Your task to perform on an android device: Search for "razer blade" on costco, select the first entry, add it to the cart, then select checkout. Image 0: 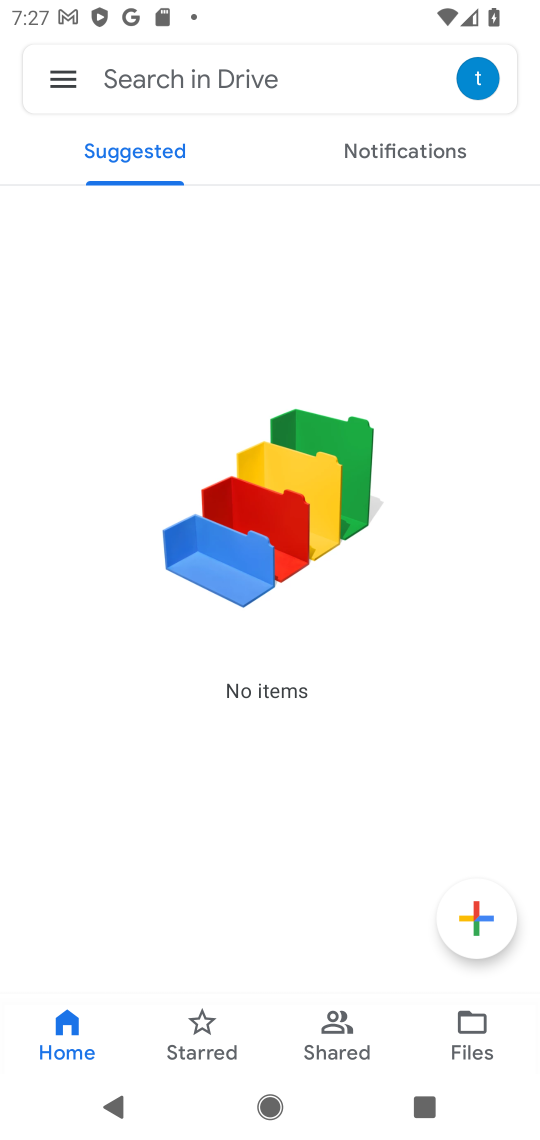
Step 0: press home button
Your task to perform on an android device: Search for "razer blade" on costco, select the first entry, add it to the cart, then select checkout. Image 1: 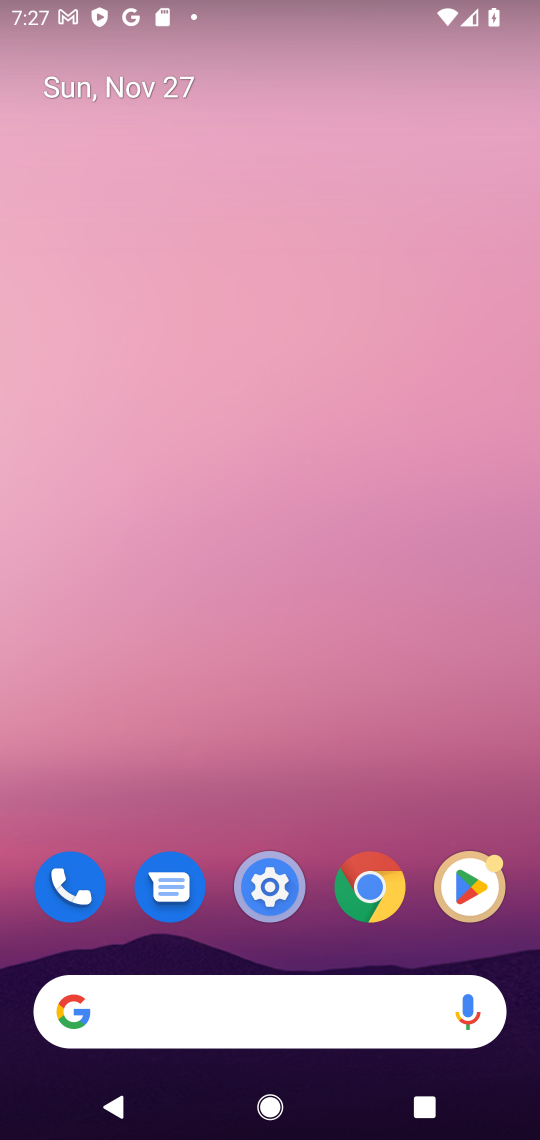
Step 1: click (215, 1009)
Your task to perform on an android device: Search for "razer blade" on costco, select the first entry, add it to the cart, then select checkout. Image 2: 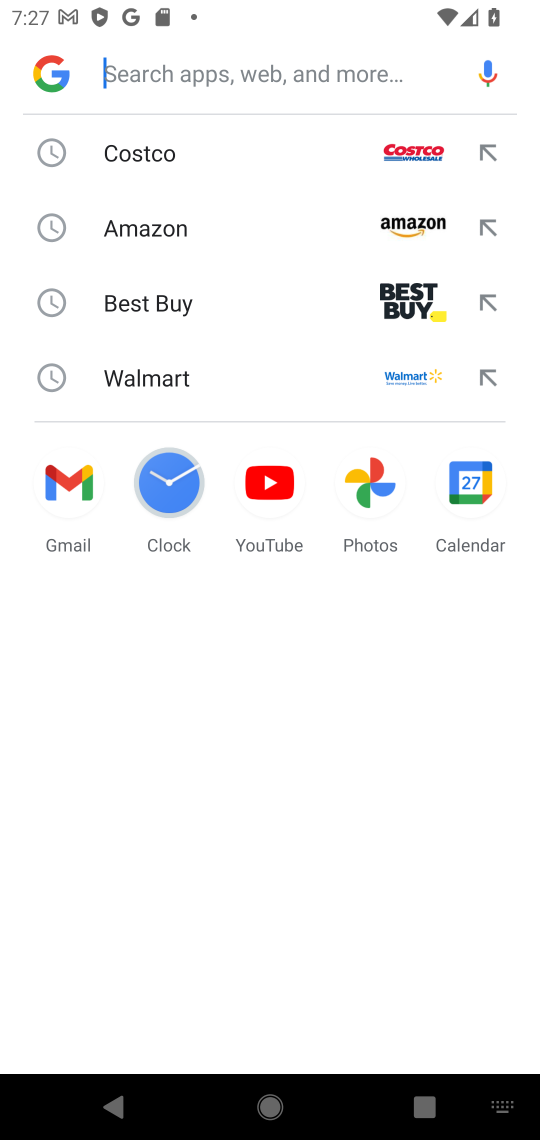
Step 2: click (253, 137)
Your task to perform on an android device: Search for "razer blade" on costco, select the first entry, add it to the cart, then select checkout. Image 3: 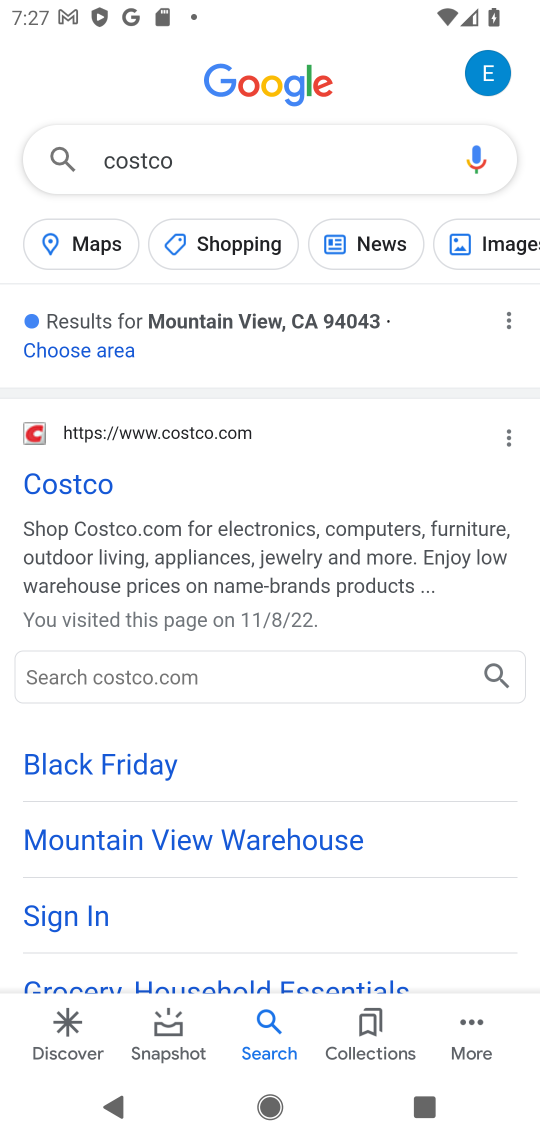
Step 3: click (43, 514)
Your task to perform on an android device: Search for "razer blade" on costco, select the first entry, add it to the cart, then select checkout. Image 4: 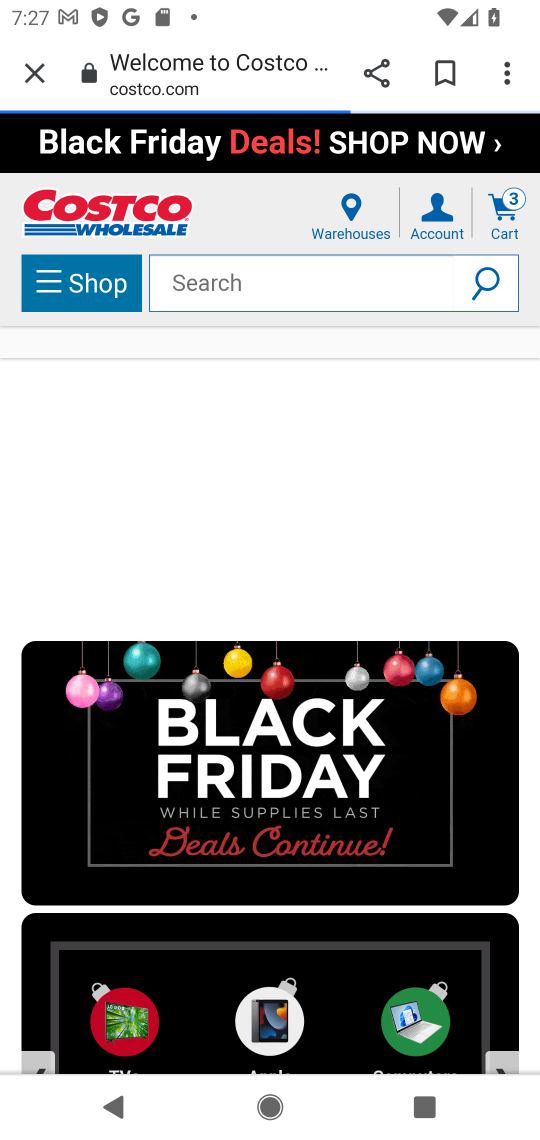
Step 4: click (319, 282)
Your task to perform on an android device: Search for "razer blade" on costco, select the first entry, add it to the cart, then select checkout. Image 5: 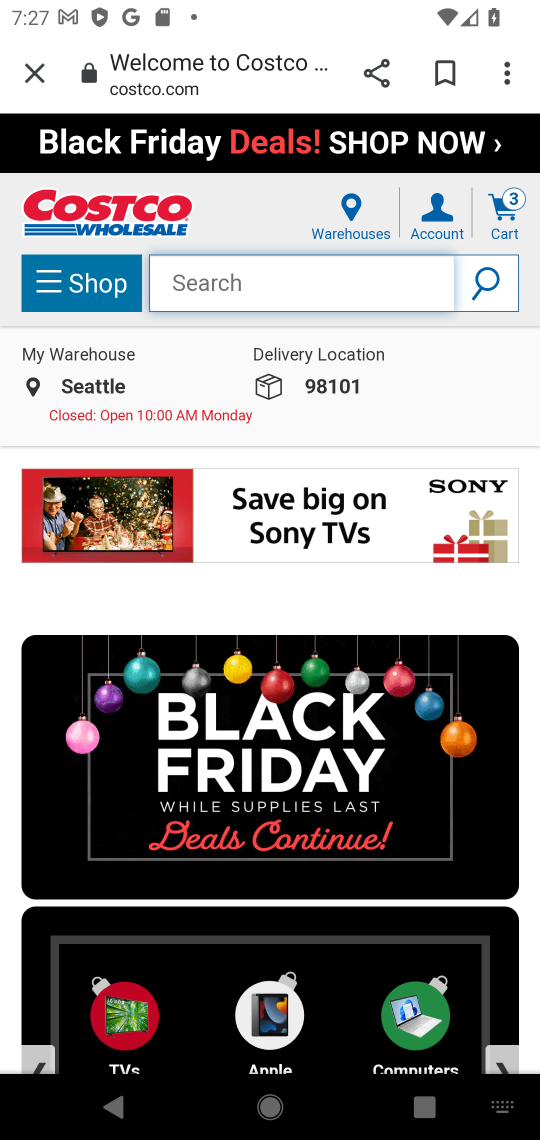
Step 5: type "razer blade"
Your task to perform on an android device: Search for "razer blade" on costco, select the first entry, add it to the cart, then select checkout. Image 6: 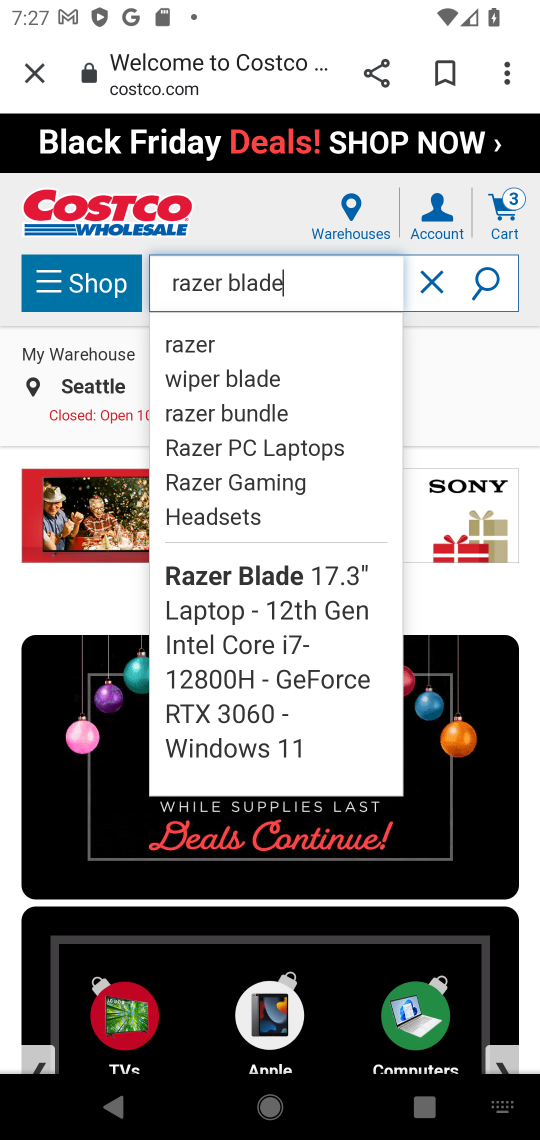
Step 6: click (473, 279)
Your task to perform on an android device: Search for "razer blade" on costco, select the first entry, add it to the cart, then select checkout. Image 7: 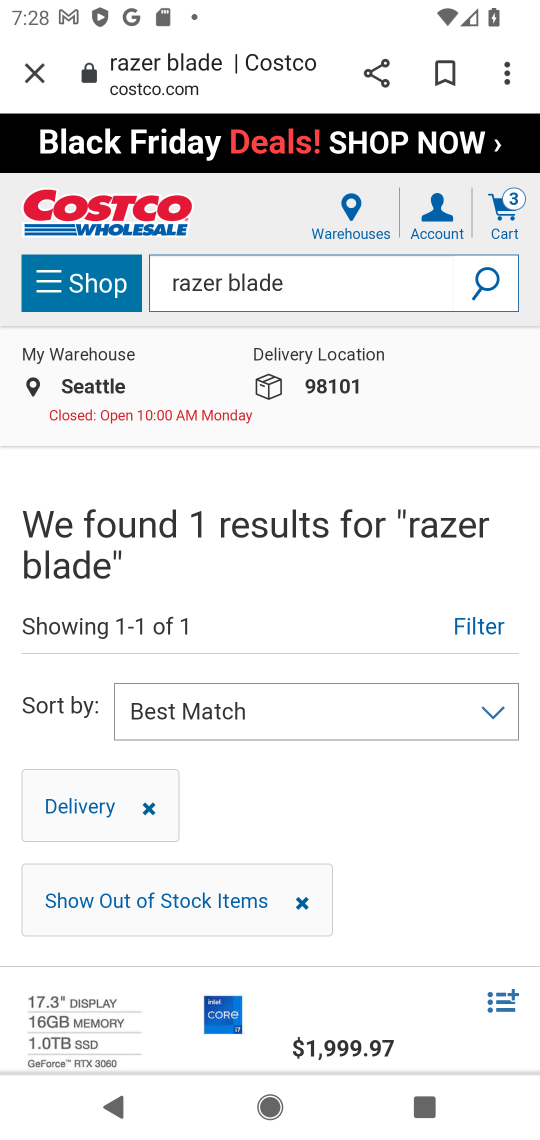
Step 7: drag from (378, 860) to (357, 317)
Your task to perform on an android device: Search for "razer blade" on costco, select the first entry, add it to the cart, then select checkout. Image 8: 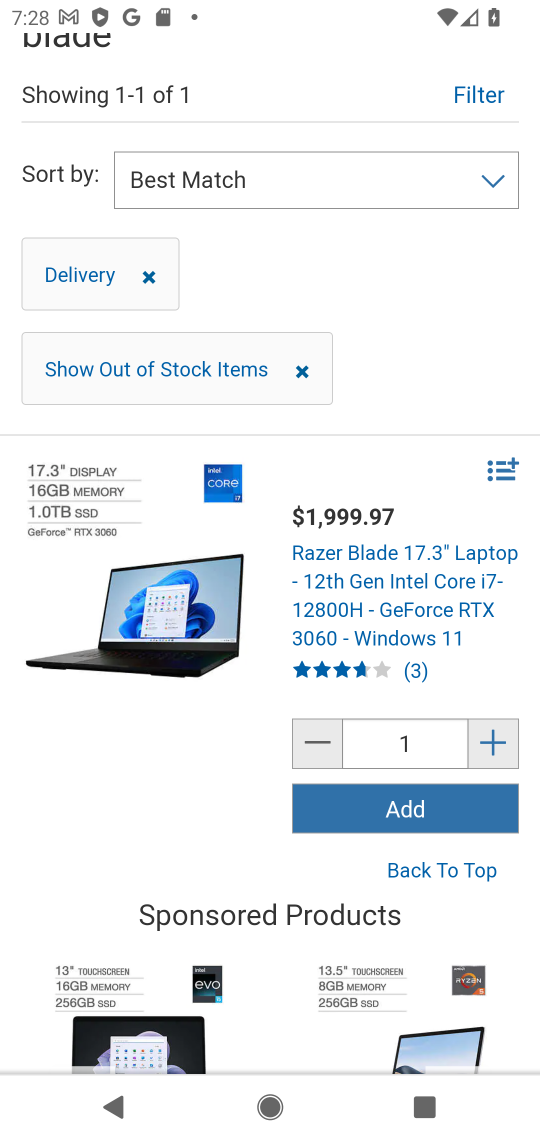
Step 8: click (453, 816)
Your task to perform on an android device: Search for "razer blade" on costco, select the first entry, add it to the cart, then select checkout. Image 9: 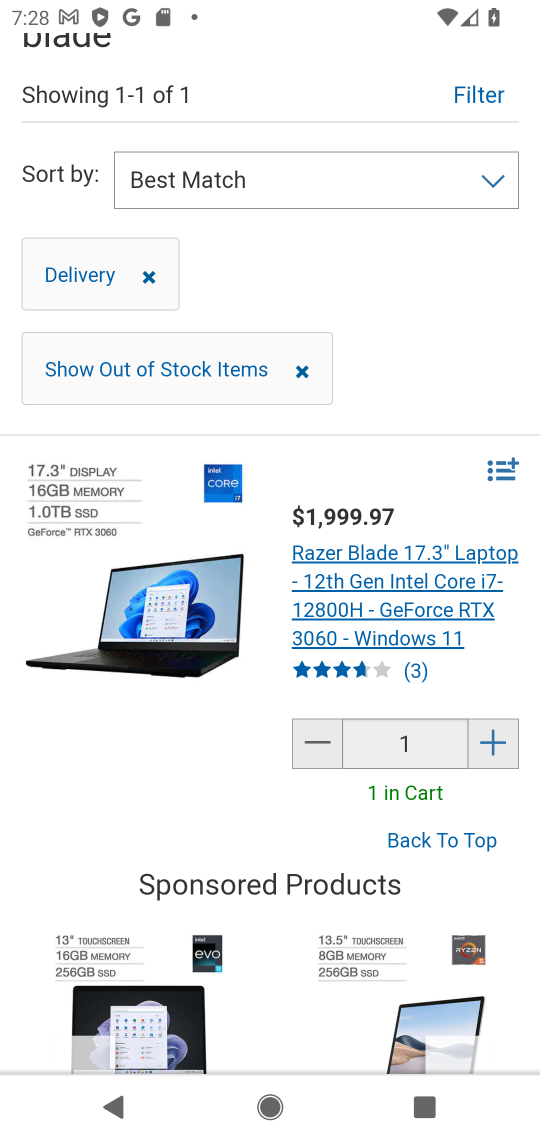
Step 9: task complete